Your task to perform on an android device: visit the assistant section in the google photos Image 0: 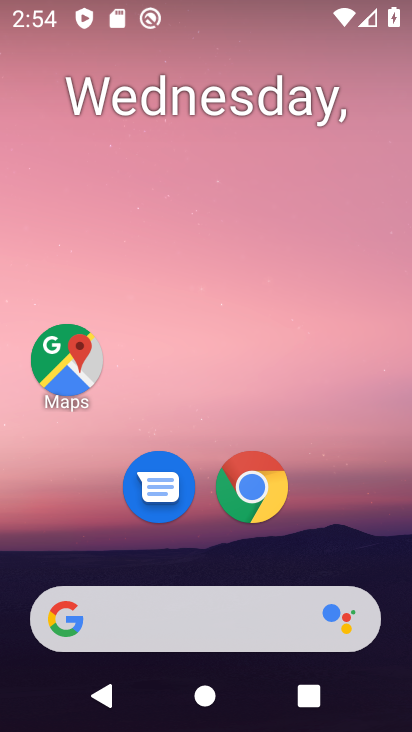
Step 0: drag from (293, 473) to (324, 61)
Your task to perform on an android device: visit the assistant section in the google photos Image 1: 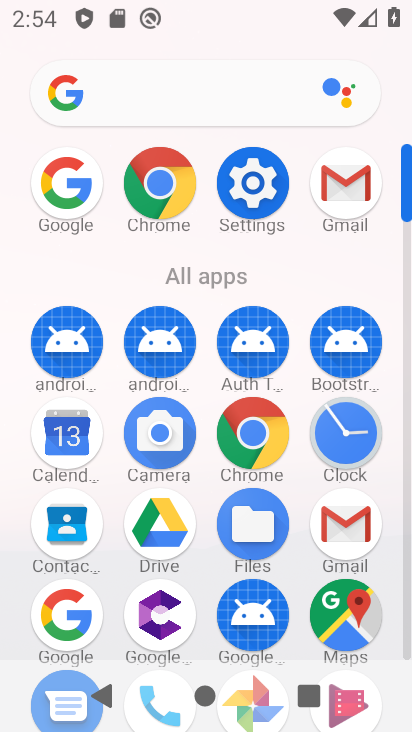
Step 1: drag from (277, 597) to (341, 217)
Your task to perform on an android device: visit the assistant section in the google photos Image 2: 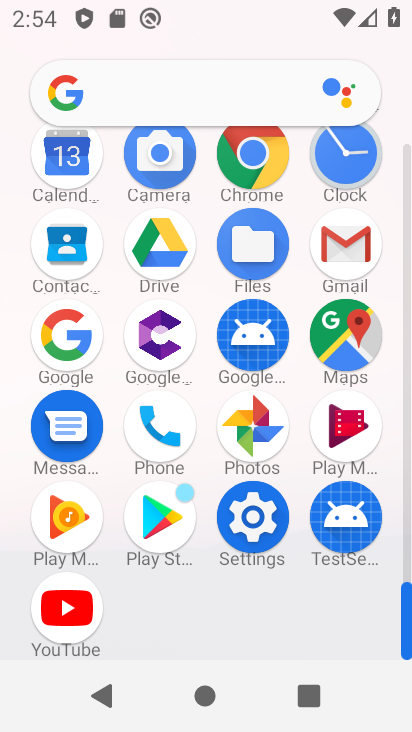
Step 2: click (241, 438)
Your task to perform on an android device: visit the assistant section in the google photos Image 3: 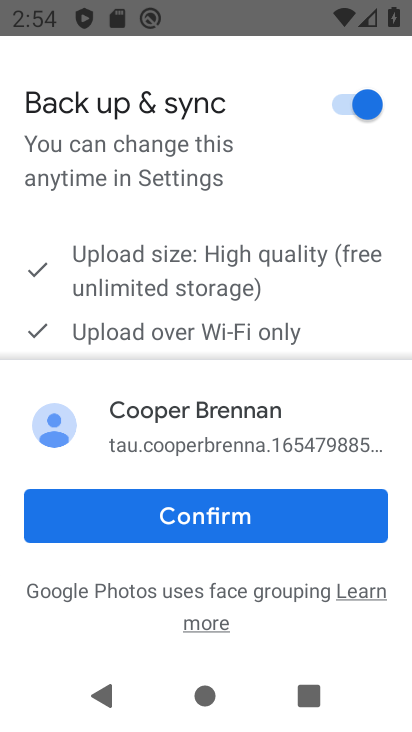
Step 3: click (235, 529)
Your task to perform on an android device: visit the assistant section in the google photos Image 4: 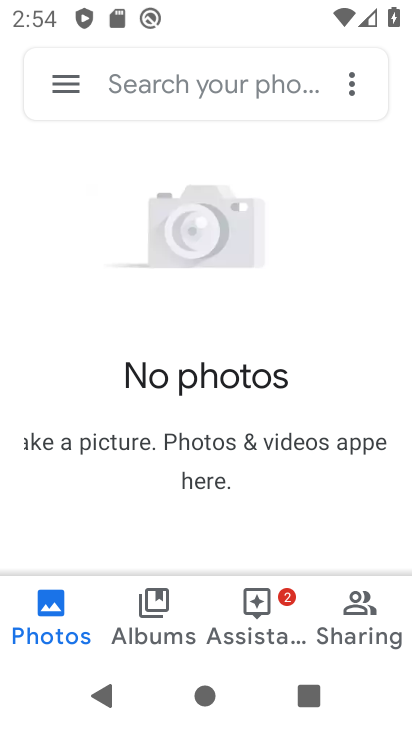
Step 4: click (266, 619)
Your task to perform on an android device: visit the assistant section in the google photos Image 5: 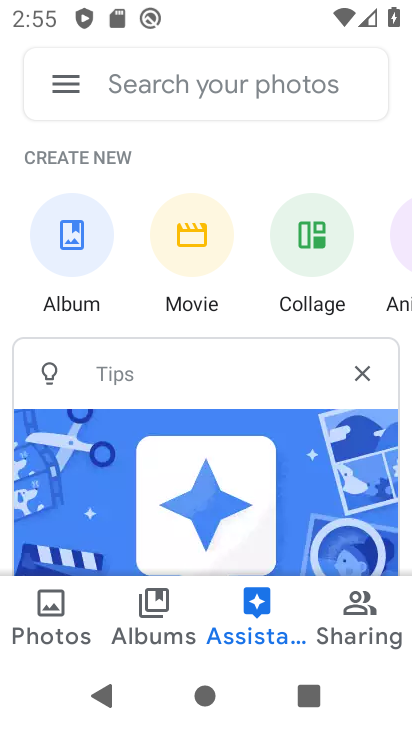
Step 5: task complete